Your task to perform on an android device: Go to display settings Image 0: 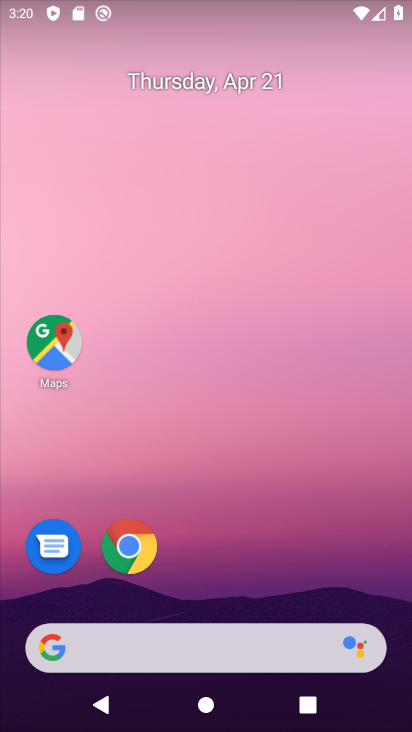
Step 0: drag from (281, 279) to (321, 147)
Your task to perform on an android device: Go to display settings Image 1: 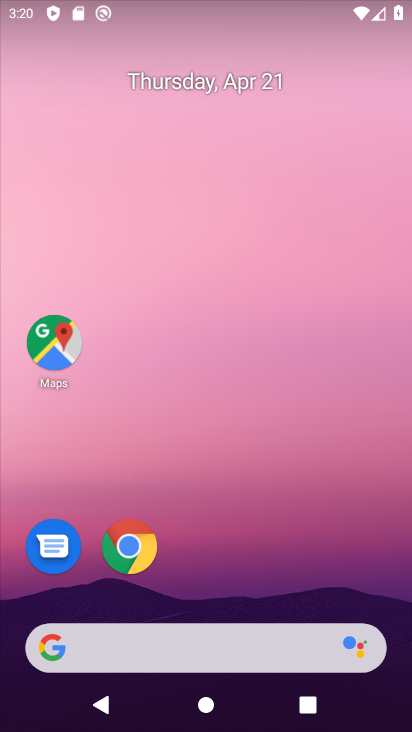
Step 1: drag from (185, 614) to (290, 128)
Your task to perform on an android device: Go to display settings Image 2: 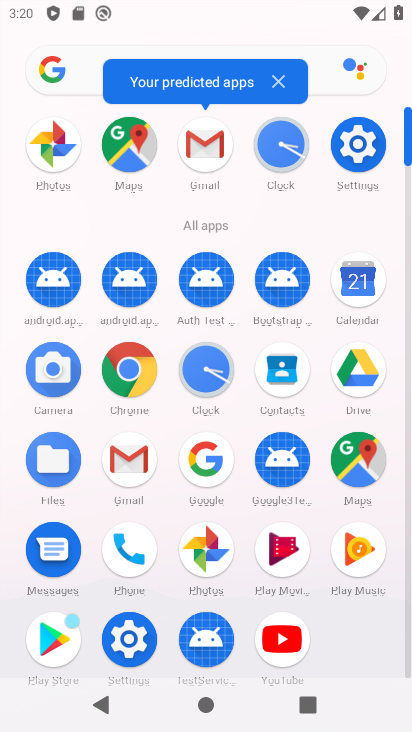
Step 2: click (128, 651)
Your task to perform on an android device: Go to display settings Image 3: 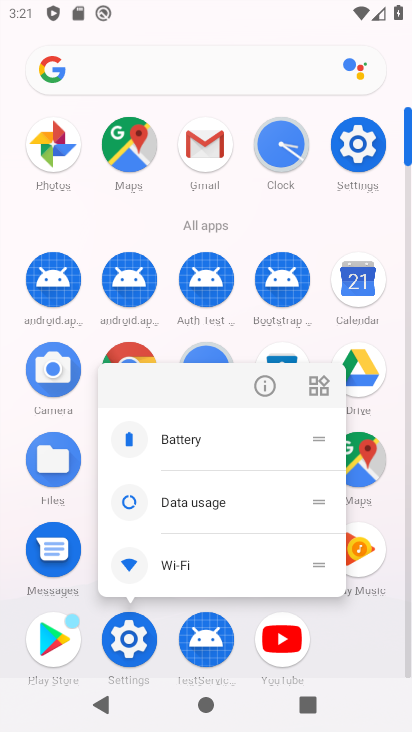
Step 3: click (133, 661)
Your task to perform on an android device: Go to display settings Image 4: 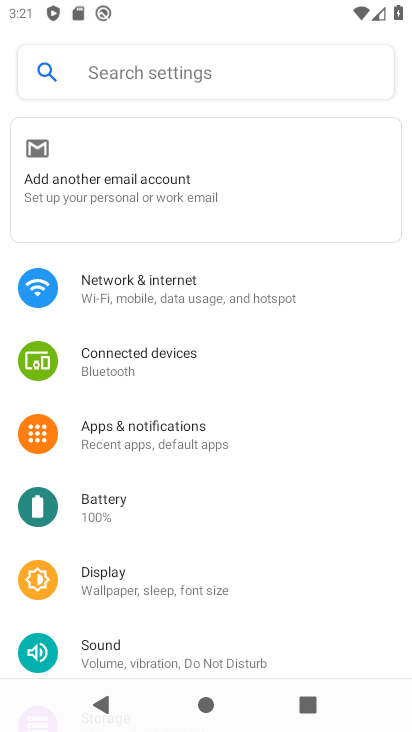
Step 4: click (116, 585)
Your task to perform on an android device: Go to display settings Image 5: 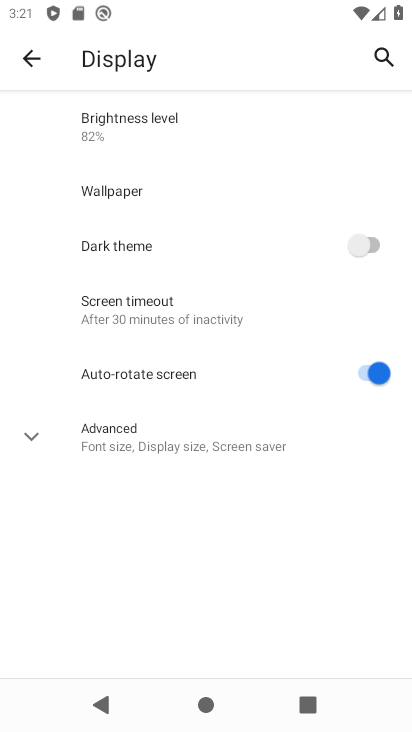
Step 5: task complete